Your task to perform on an android device: toggle notification dots Image 0: 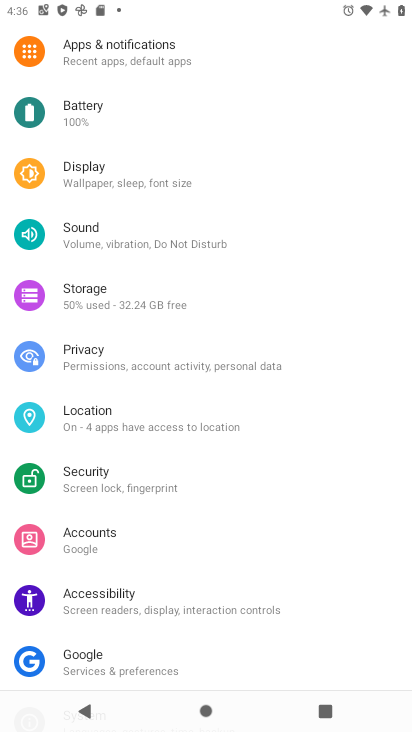
Step 0: press home button
Your task to perform on an android device: toggle notification dots Image 1: 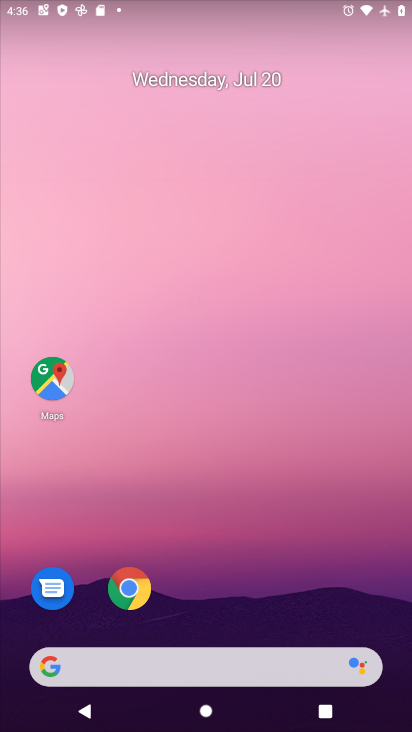
Step 1: drag from (248, 487) to (285, 82)
Your task to perform on an android device: toggle notification dots Image 2: 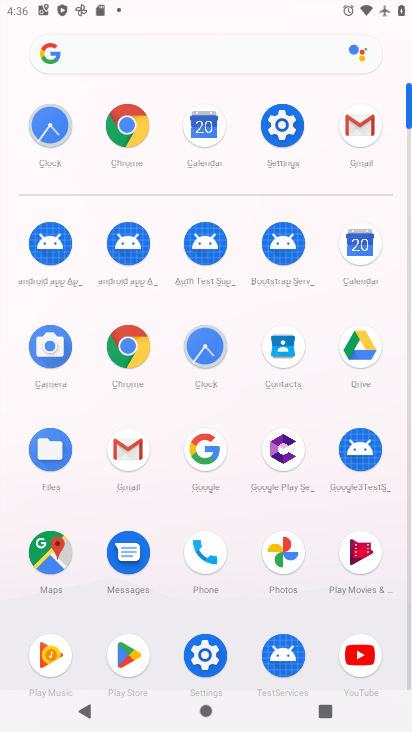
Step 2: click (283, 118)
Your task to perform on an android device: toggle notification dots Image 3: 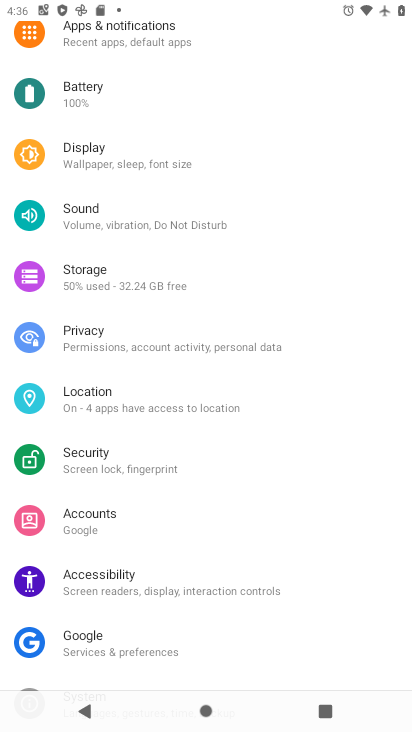
Step 3: drag from (174, 103) to (165, 446)
Your task to perform on an android device: toggle notification dots Image 4: 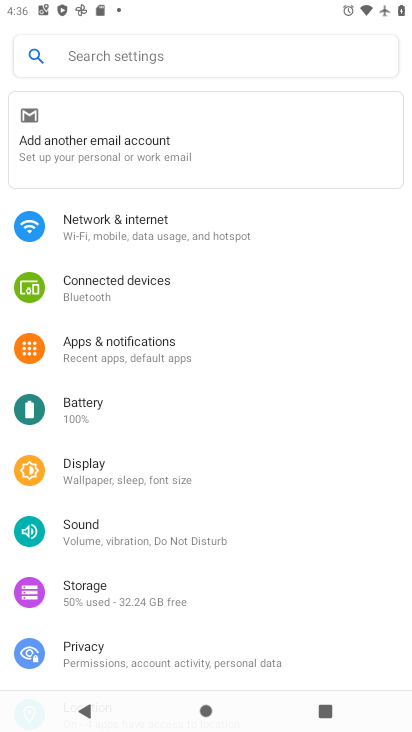
Step 4: click (138, 348)
Your task to perform on an android device: toggle notification dots Image 5: 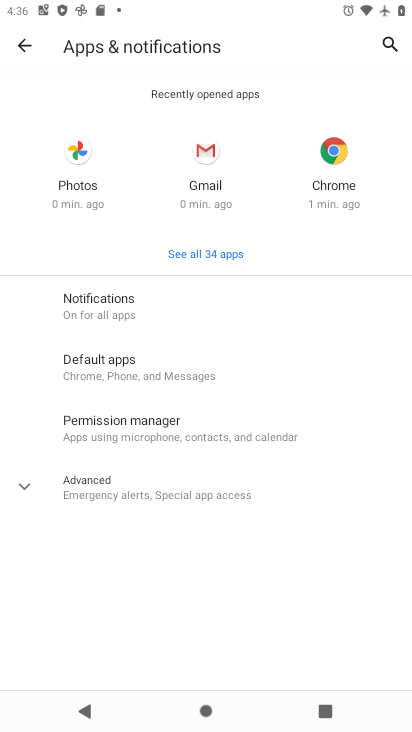
Step 5: click (127, 302)
Your task to perform on an android device: toggle notification dots Image 6: 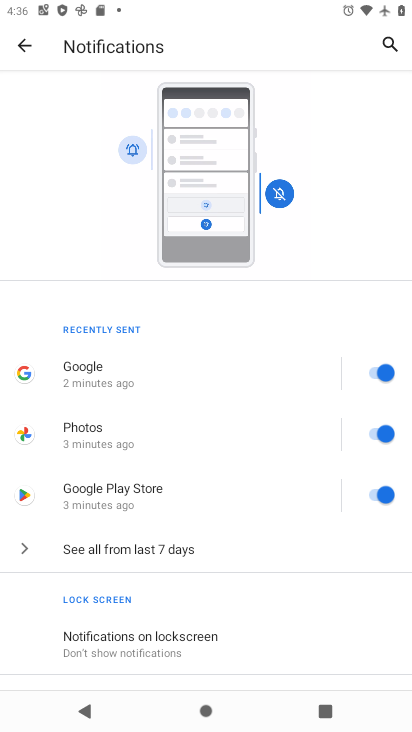
Step 6: drag from (202, 594) to (244, 205)
Your task to perform on an android device: toggle notification dots Image 7: 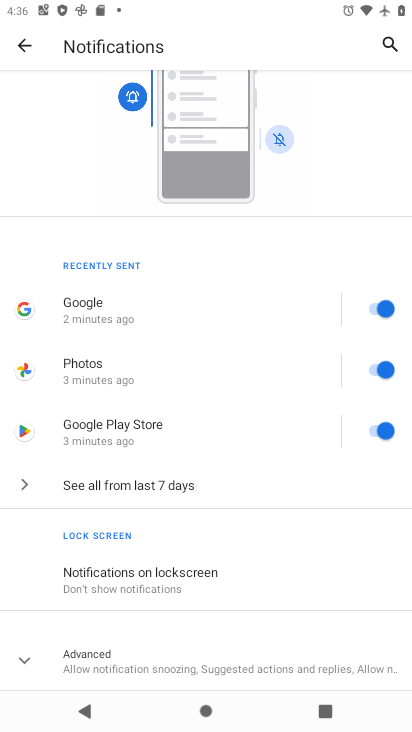
Step 7: click (136, 650)
Your task to perform on an android device: toggle notification dots Image 8: 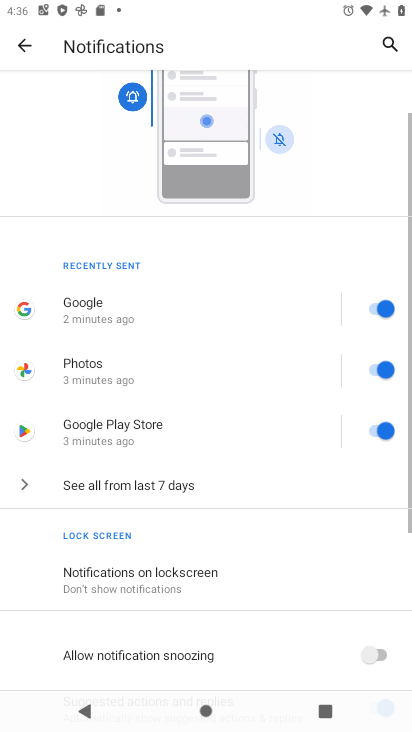
Step 8: drag from (162, 615) to (219, 186)
Your task to perform on an android device: toggle notification dots Image 9: 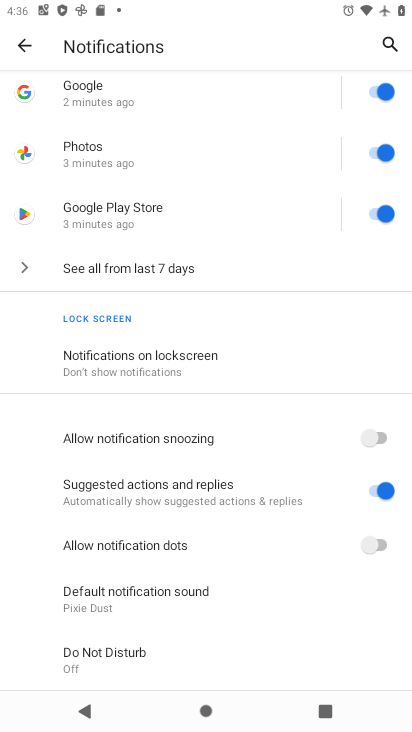
Step 9: click (359, 551)
Your task to perform on an android device: toggle notification dots Image 10: 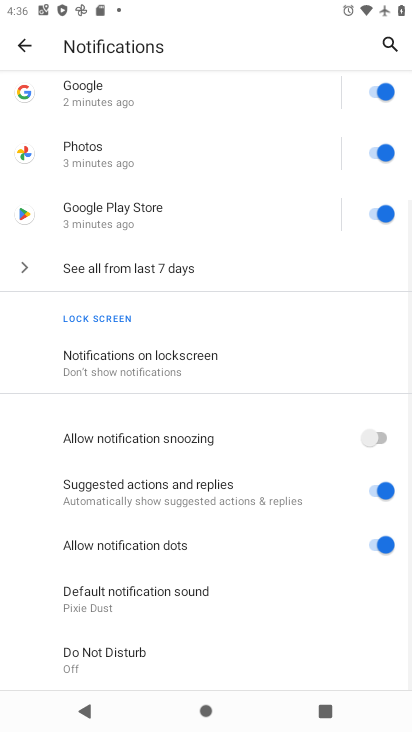
Step 10: task complete